Your task to perform on an android device: toggle data saver in the chrome app Image 0: 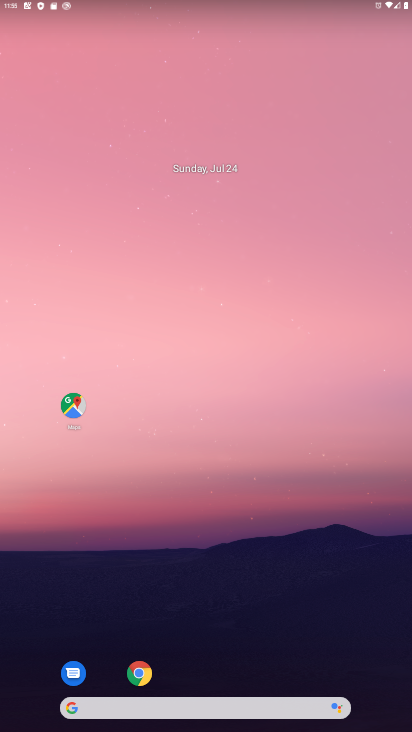
Step 0: drag from (240, 599) to (218, 91)
Your task to perform on an android device: toggle data saver in the chrome app Image 1: 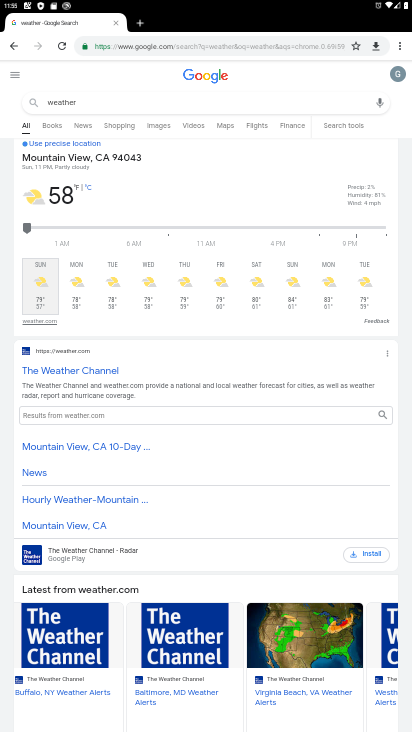
Step 1: press home button
Your task to perform on an android device: toggle data saver in the chrome app Image 2: 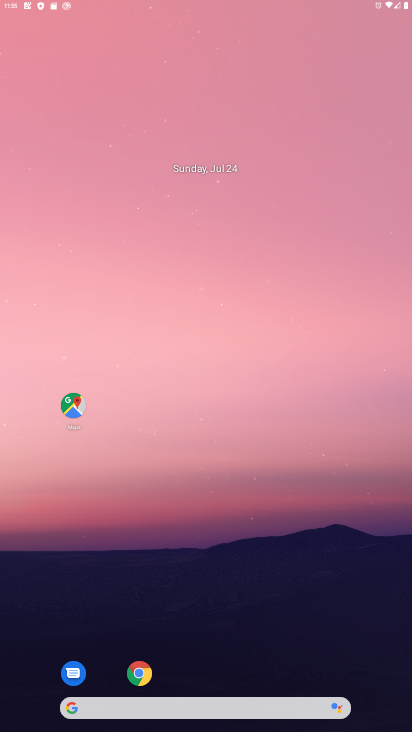
Step 2: drag from (320, 237) to (321, 120)
Your task to perform on an android device: toggle data saver in the chrome app Image 3: 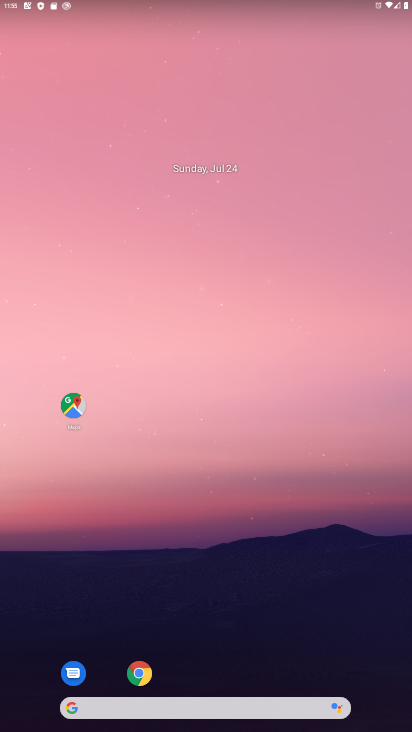
Step 3: drag from (325, 496) to (332, 36)
Your task to perform on an android device: toggle data saver in the chrome app Image 4: 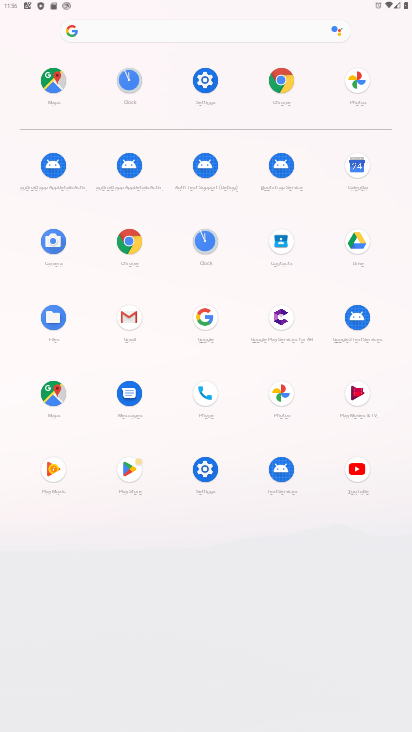
Step 4: click (283, 83)
Your task to perform on an android device: toggle data saver in the chrome app Image 5: 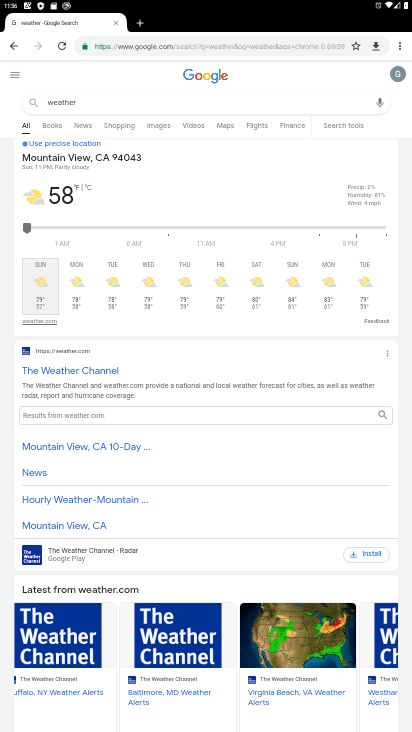
Step 5: drag from (393, 44) to (310, 317)
Your task to perform on an android device: toggle data saver in the chrome app Image 6: 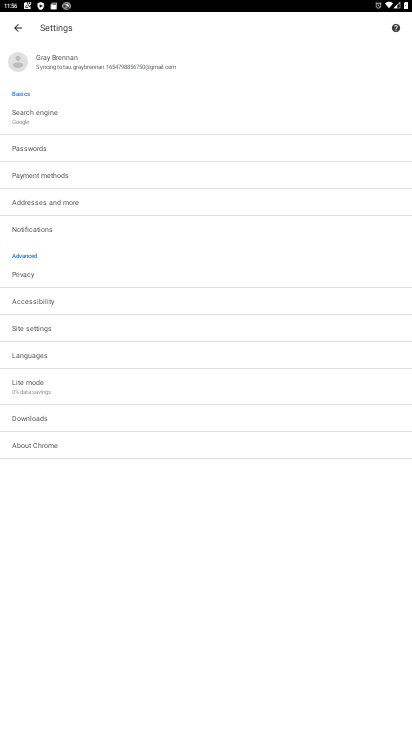
Step 6: click (36, 382)
Your task to perform on an android device: toggle data saver in the chrome app Image 7: 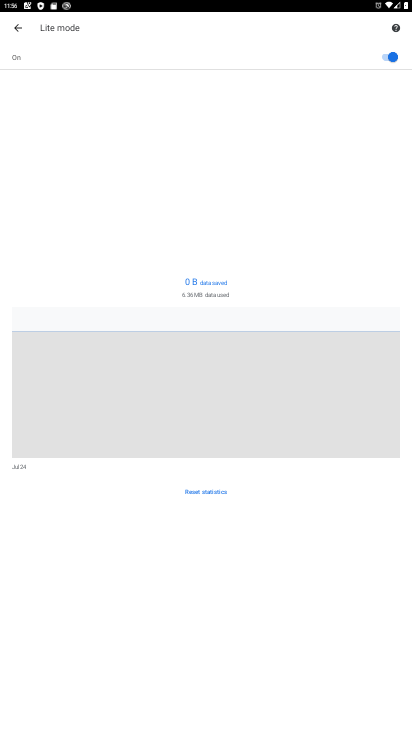
Step 7: click (393, 69)
Your task to perform on an android device: toggle data saver in the chrome app Image 8: 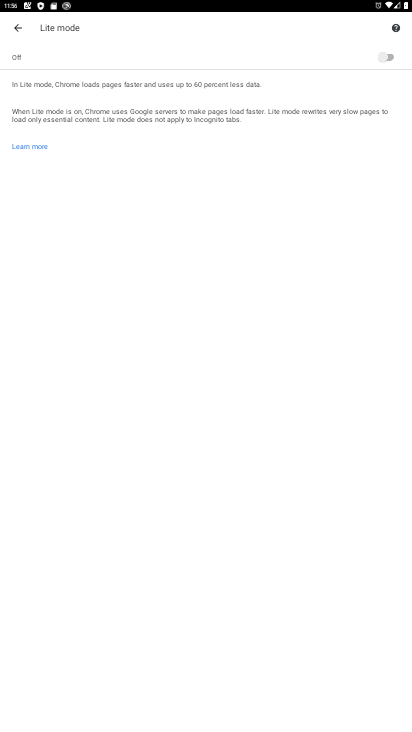
Step 8: task complete